Your task to perform on an android device: open app "Adobe Express: Graphic Design" (install if not already installed) Image 0: 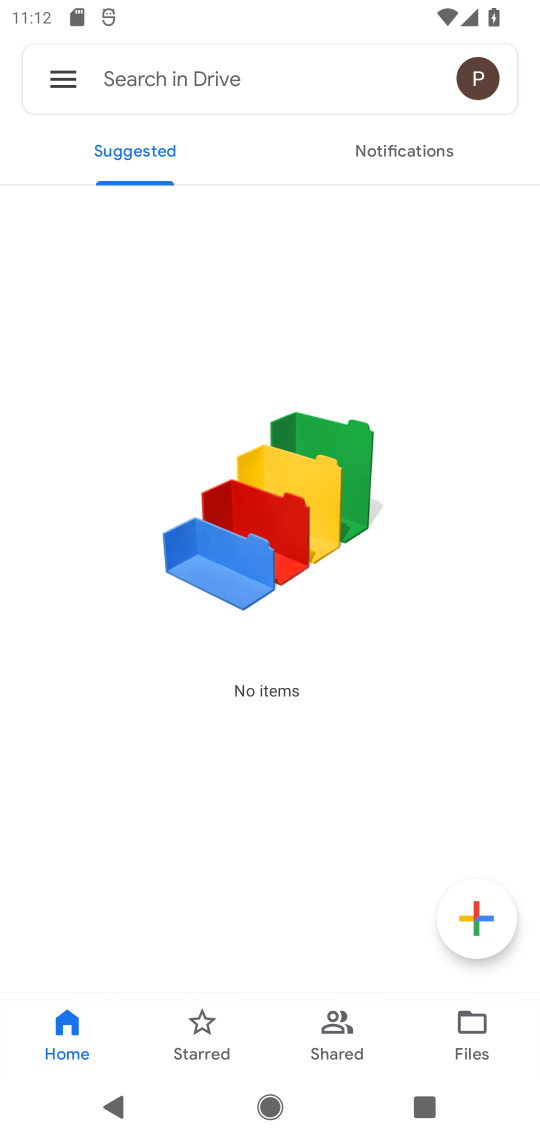
Step 0: press home button
Your task to perform on an android device: open app "Adobe Express: Graphic Design" (install if not already installed) Image 1: 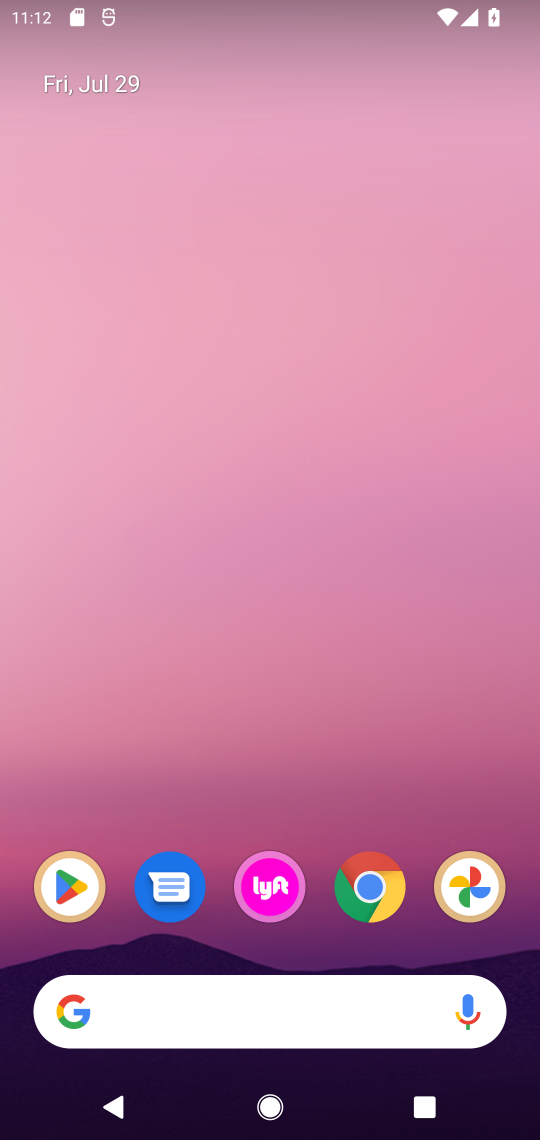
Step 1: drag from (264, 1028) to (391, 210)
Your task to perform on an android device: open app "Adobe Express: Graphic Design" (install if not already installed) Image 2: 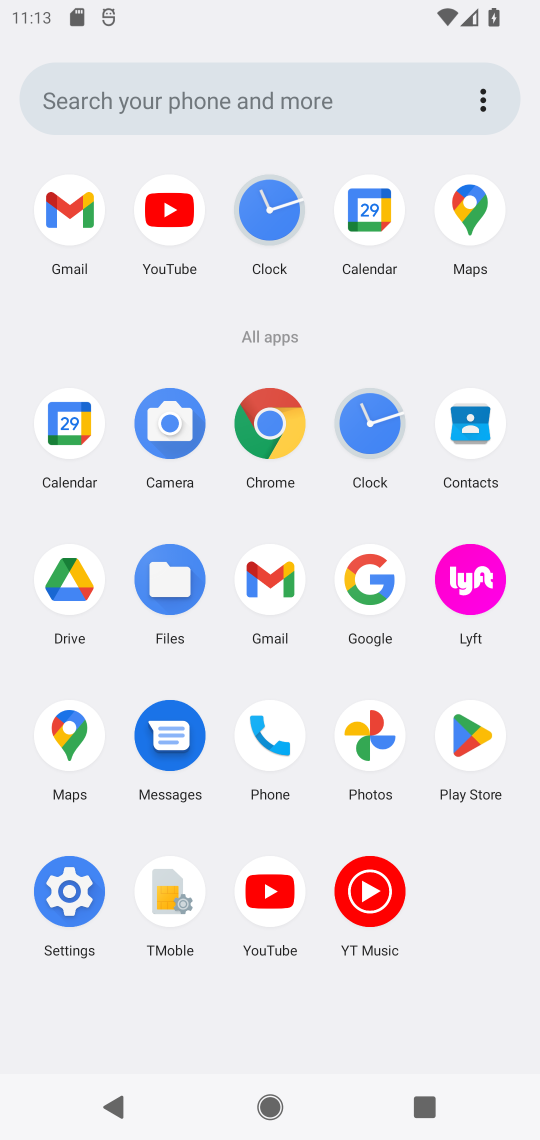
Step 2: click (471, 741)
Your task to perform on an android device: open app "Adobe Express: Graphic Design" (install if not already installed) Image 3: 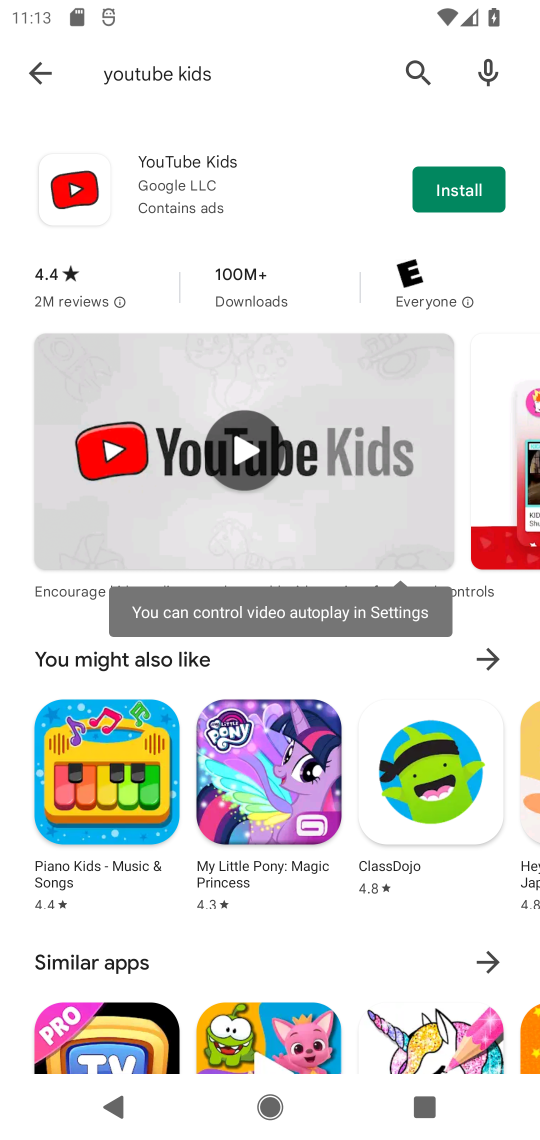
Step 3: click (413, 76)
Your task to perform on an android device: open app "Adobe Express: Graphic Design" (install if not already installed) Image 4: 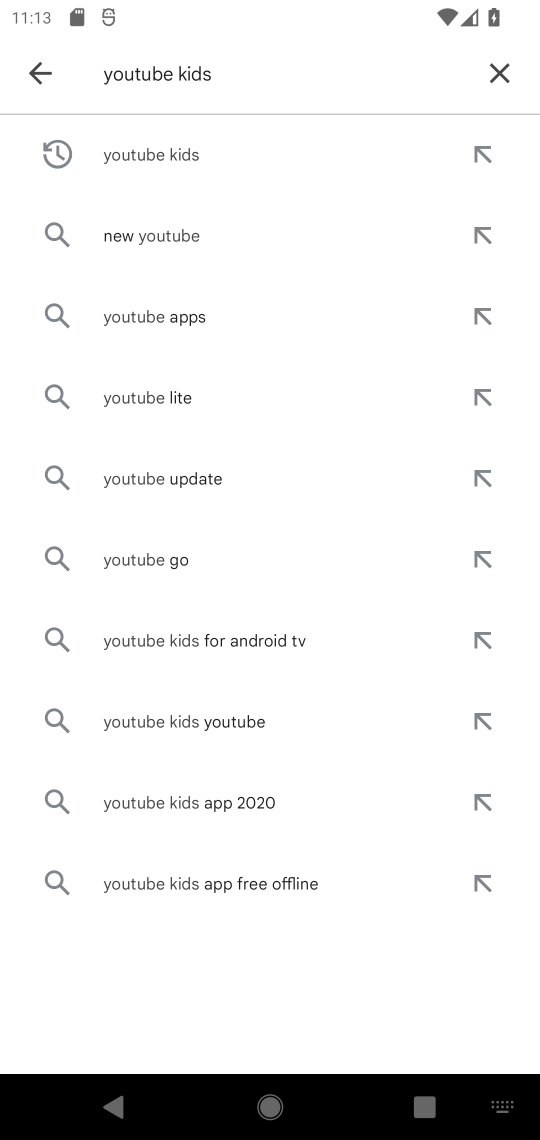
Step 4: click (494, 75)
Your task to perform on an android device: open app "Adobe Express: Graphic Design" (install if not already installed) Image 5: 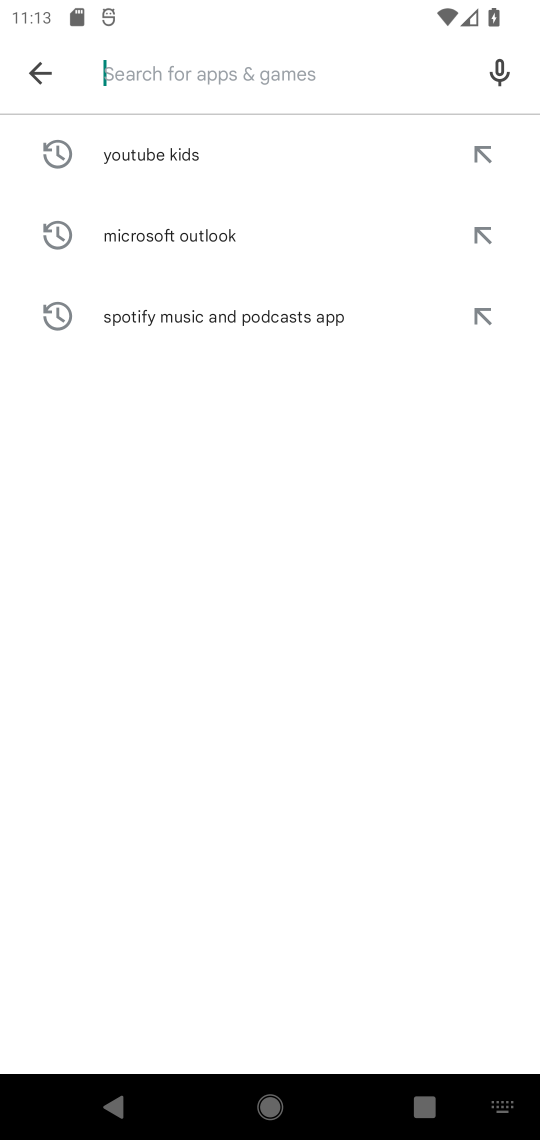
Step 5: click (139, 79)
Your task to perform on an android device: open app "Adobe Express: Graphic Design" (install if not already installed) Image 6: 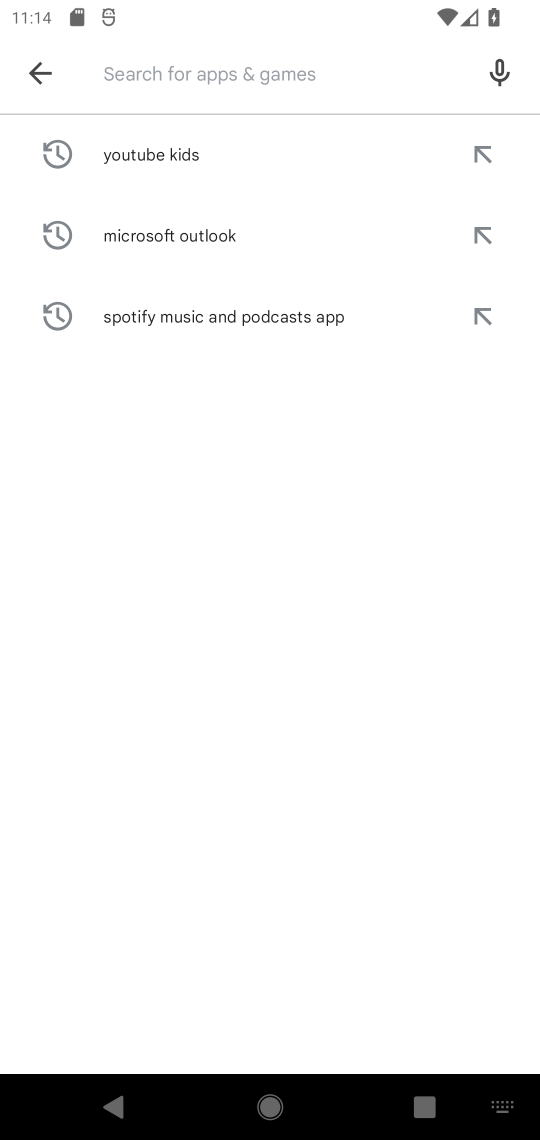
Step 6: type "Adobe Express: Graphic Design"
Your task to perform on an android device: open app "Adobe Express: Graphic Design" (install if not already installed) Image 7: 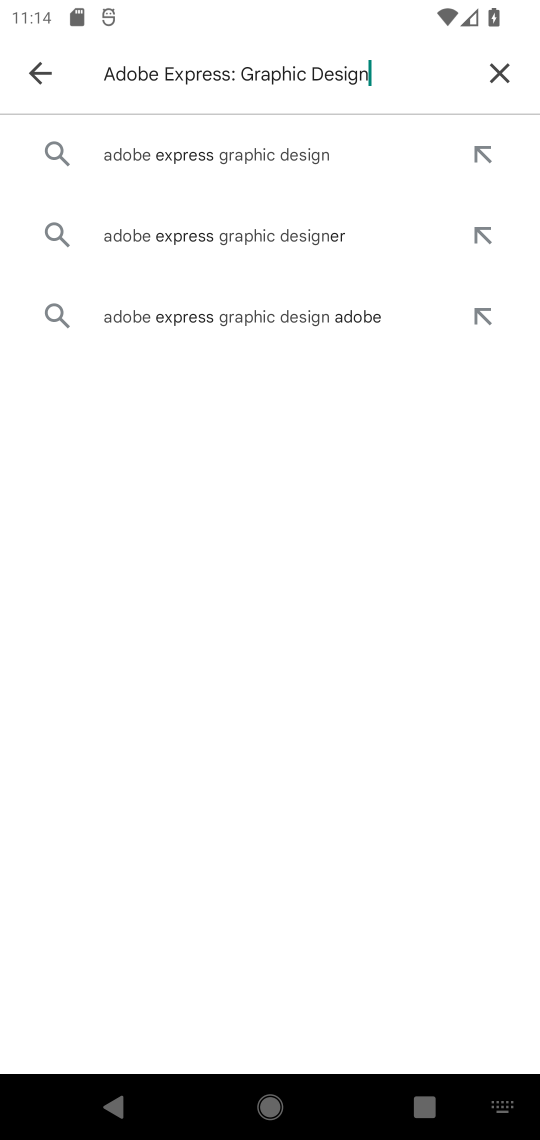
Step 7: click (272, 161)
Your task to perform on an android device: open app "Adobe Express: Graphic Design" (install if not already installed) Image 8: 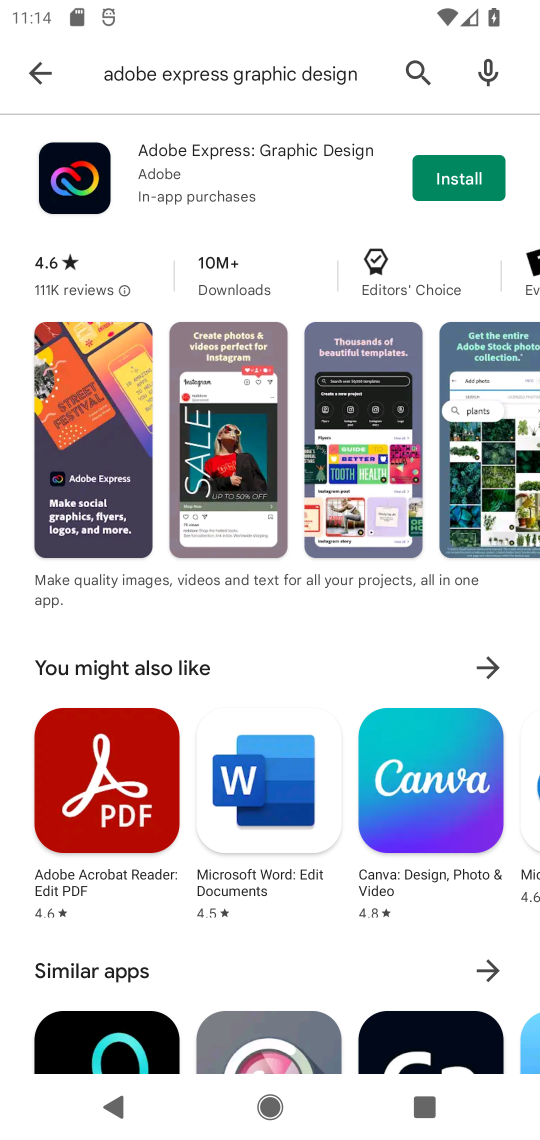
Step 8: click (475, 178)
Your task to perform on an android device: open app "Adobe Express: Graphic Design" (install if not already installed) Image 9: 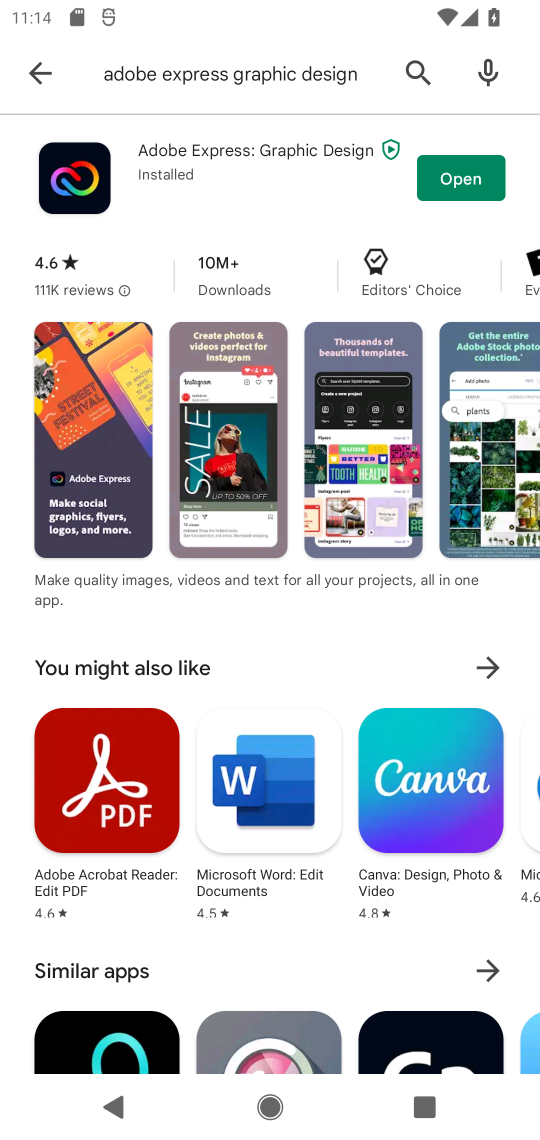
Step 9: click (457, 177)
Your task to perform on an android device: open app "Adobe Express: Graphic Design" (install if not already installed) Image 10: 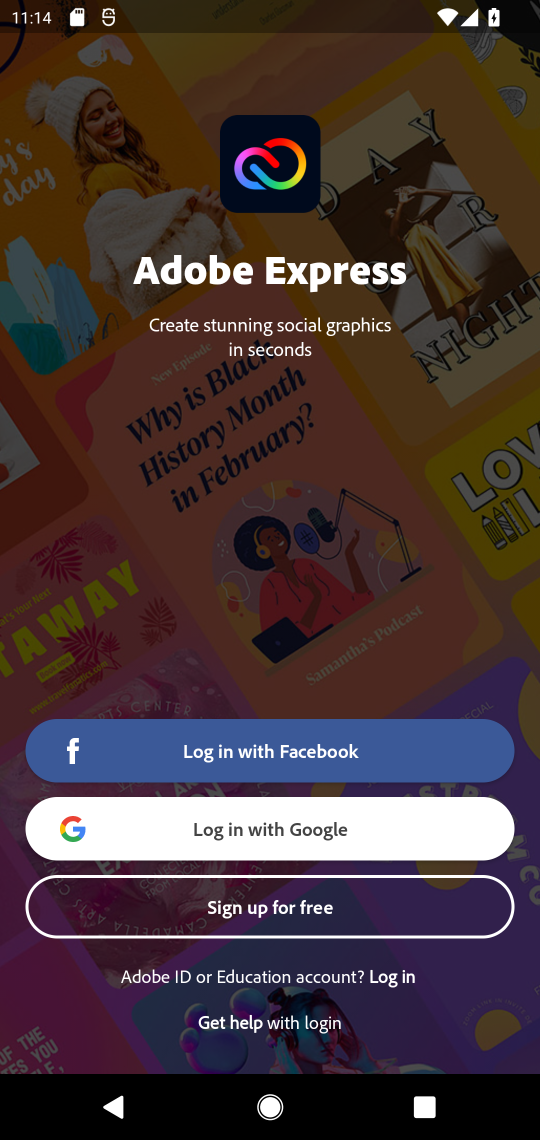
Step 10: task complete